Your task to perform on an android device: Open Google Chrome and click the shortcut for Amazon.com Image 0: 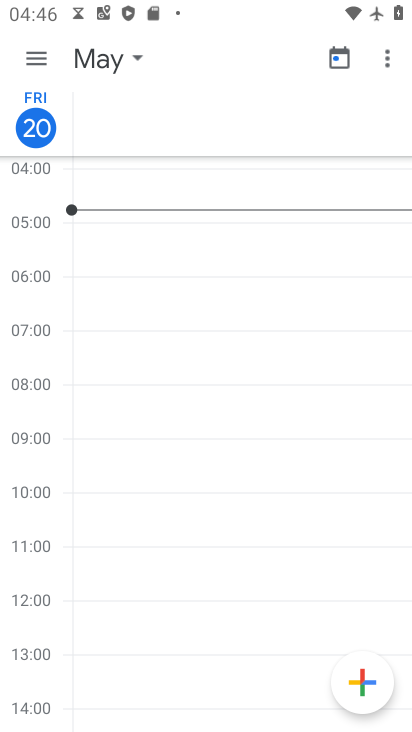
Step 0: press back button
Your task to perform on an android device: Open Google Chrome and click the shortcut for Amazon.com Image 1: 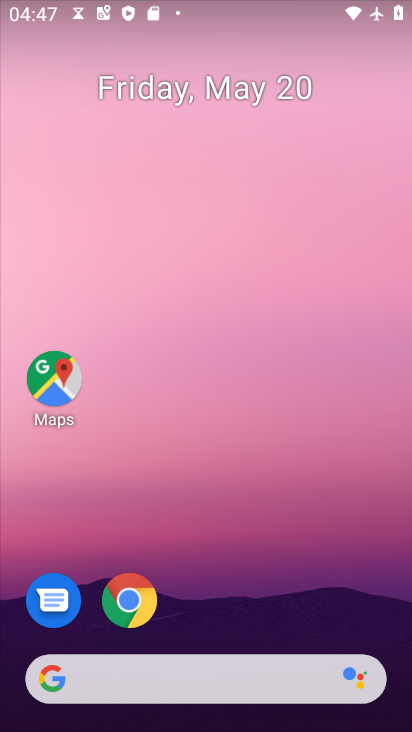
Step 1: drag from (248, 578) to (240, 18)
Your task to perform on an android device: Open Google Chrome and click the shortcut for Amazon.com Image 2: 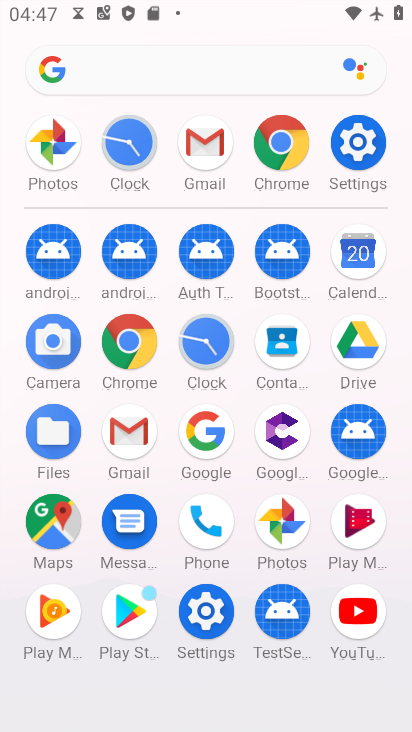
Step 2: drag from (13, 566) to (9, 231)
Your task to perform on an android device: Open Google Chrome and click the shortcut for Amazon.com Image 3: 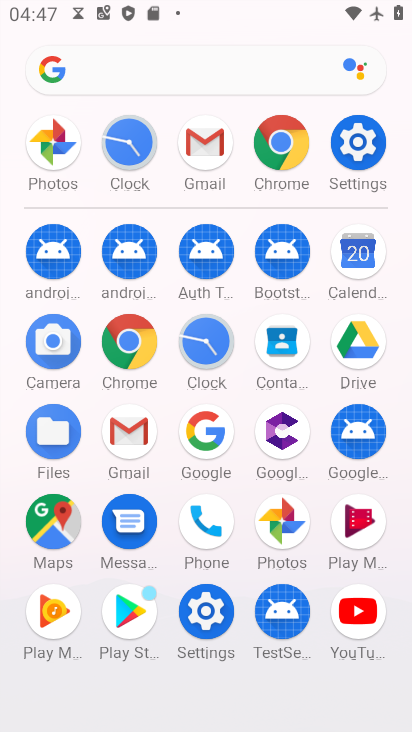
Step 3: click (127, 337)
Your task to perform on an android device: Open Google Chrome and click the shortcut for Amazon.com Image 4: 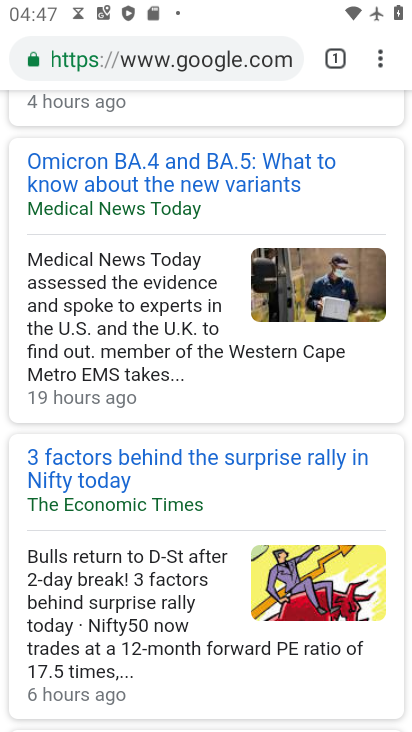
Step 4: click (156, 59)
Your task to perform on an android device: Open Google Chrome and click the shortcut for Amazon.com Image 5: 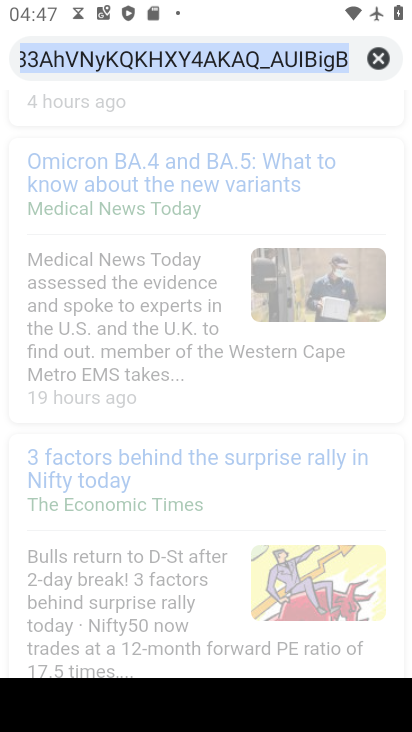
Step 5: click (382, 59)
Your task to perform on an android device: Open Google Chrome and click the shortcut for Amazon.com Image 6: 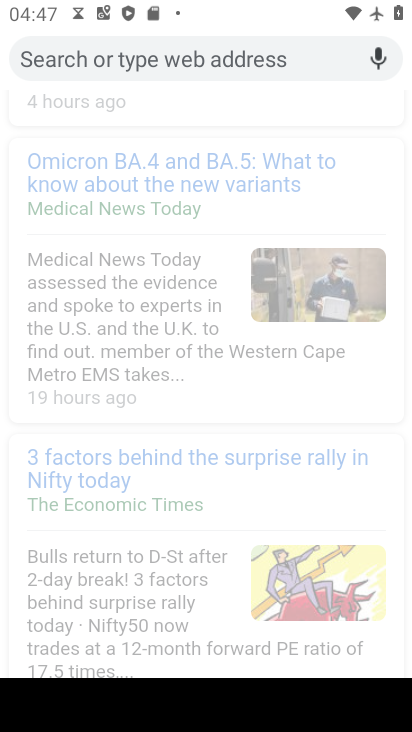
Step 6: type "Amazon.com"
Your task to perform on an android device: Open Google Chrome and click the shortcut for Amazon.com Image 7: 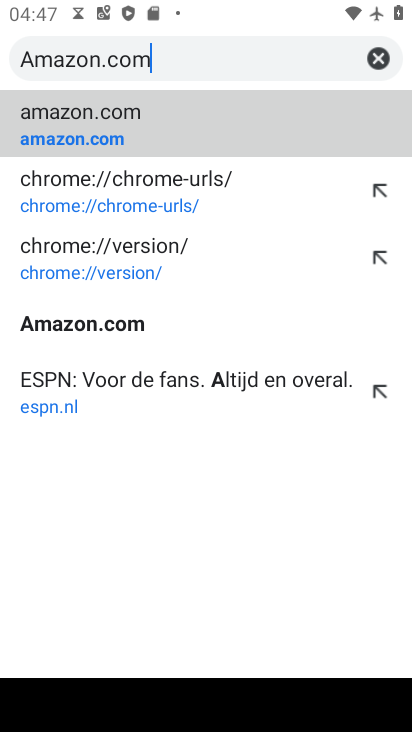
Step 7: type ""
Your task to perform on an android device: Open Google Chrome and click the shortcut for Amazon.com Image 8: 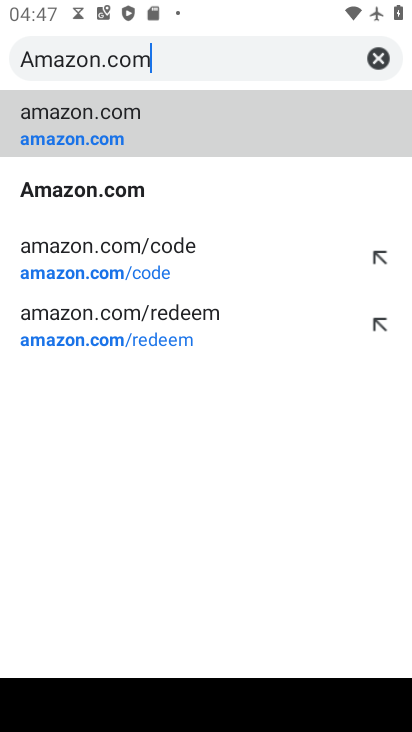
Step 8: click (158, 110)
Your task to perform on an android device: Open Google Chrome and click the shortcut for Amazon.com Image 9: 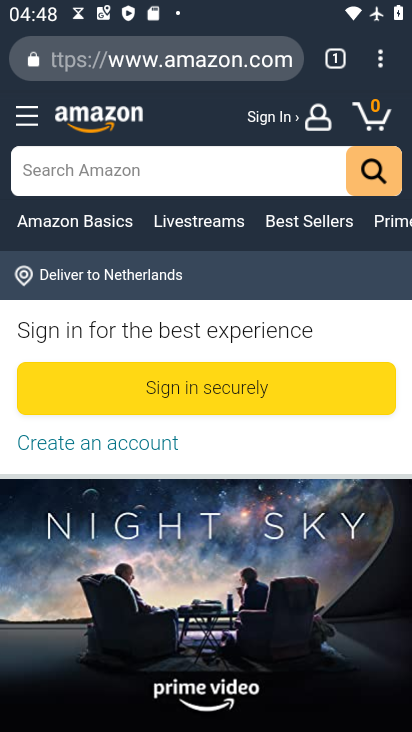
Step 9: task complete